Your task to perform on an android device: set the stopwatch Image 0: 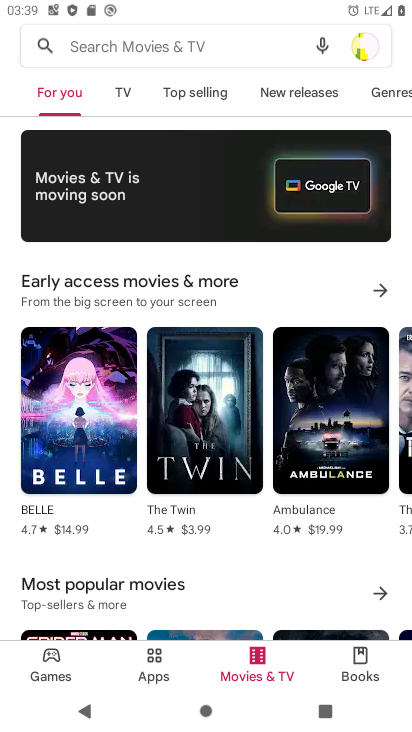
Step 0: press home button
Your task to perform on an android device: set the stopwatch Image 1: 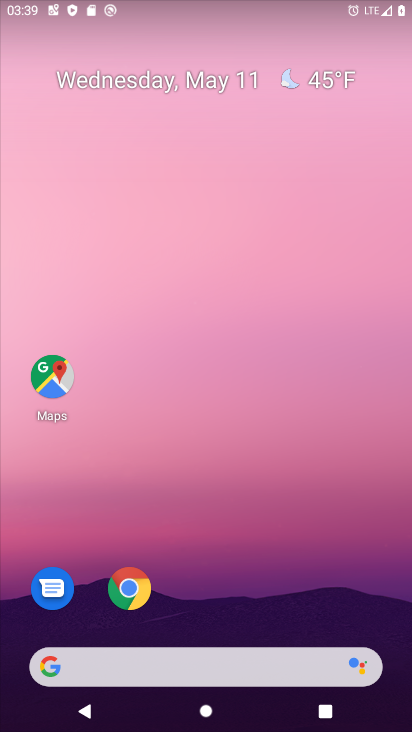
Step 1: drag from (222, 601) to (188, 264)
Your task to perform on an android device: set the stopwatch Image 2: 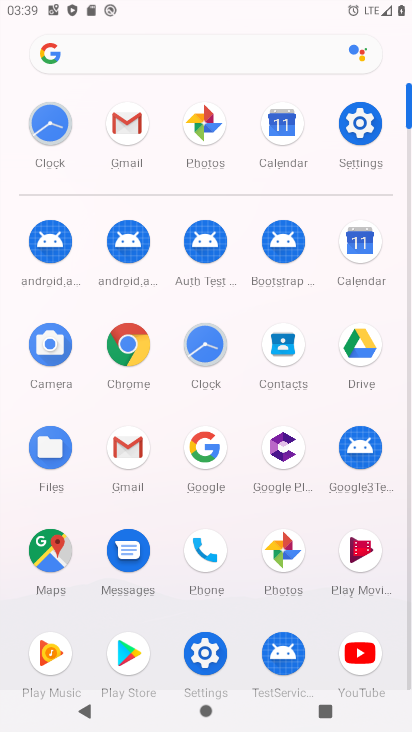
Step 2: click (211, 341)
Your task to perform on an android device: set the stopwatch Image 3: 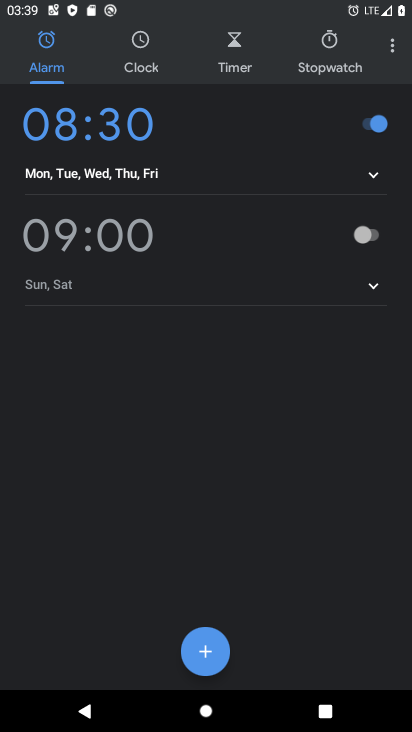
Step 3: click (312, 45)
Your task to perform on an android device: set the stopwatch Image 4: 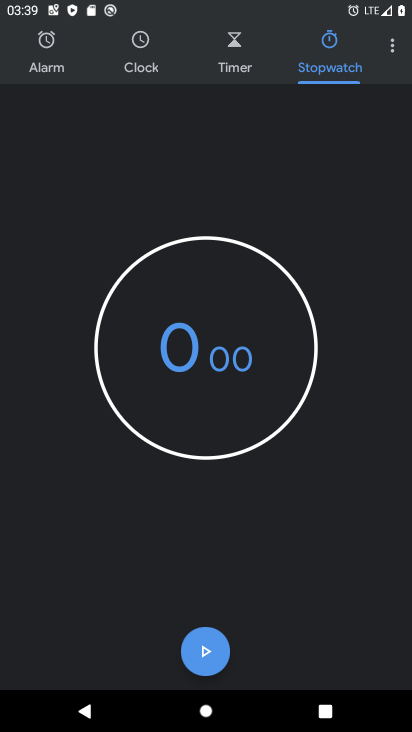
Step 4: click (214, 652)
Your task to perform on an android device: set the stopwatch Image 5: 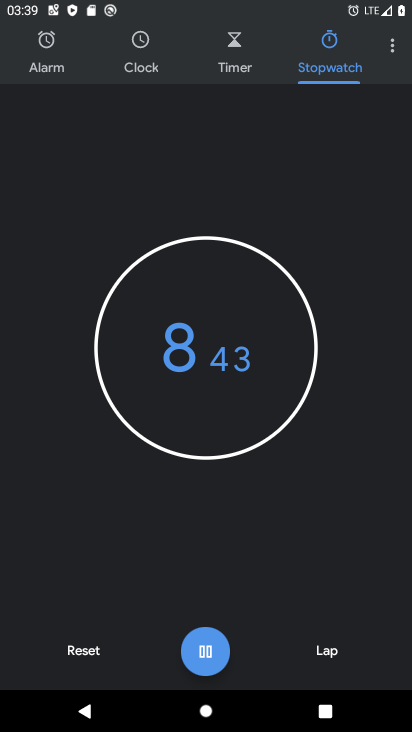
Step 5: task complete